Your task to perform on an android device: change the clock display to analog Image 0: 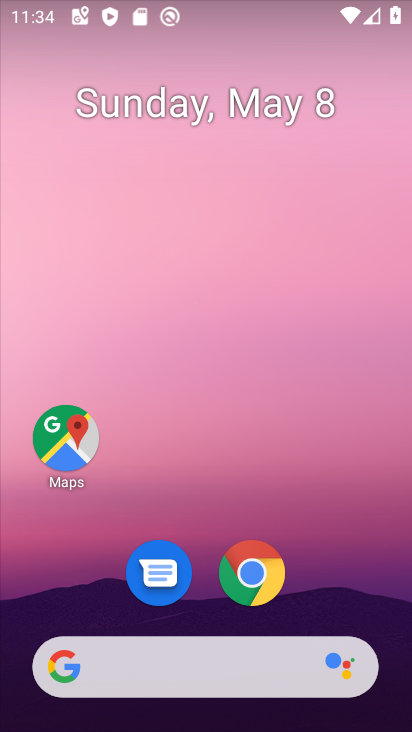
Step 0: drag from (336, 569) to (287, 35)
Your task to perform on an android device: change the clock display to analog Image 1: 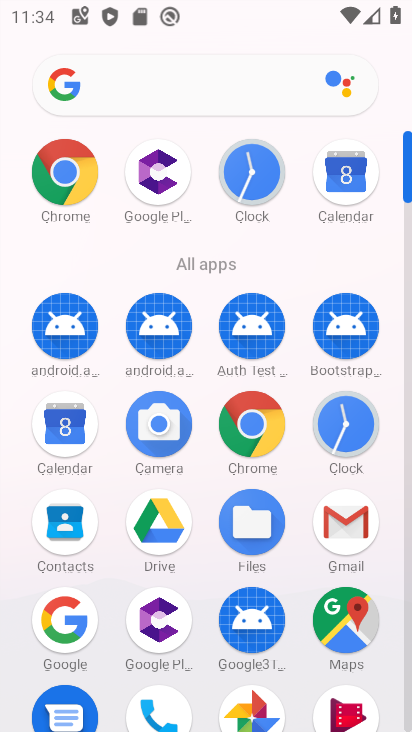
Step 1: drag from (13, 599) to (10, 242)
Your task to perform on an android device: change the clock display to analog Image 2: 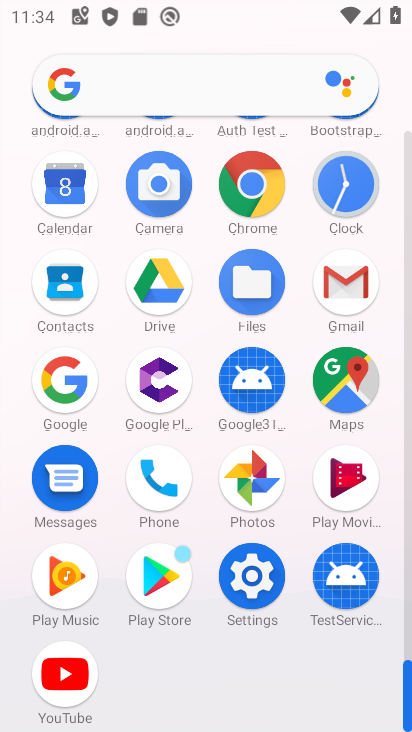
Step 2: click (347, 178)
Your task to perform on an android device: change the clock display to analog Image 3: 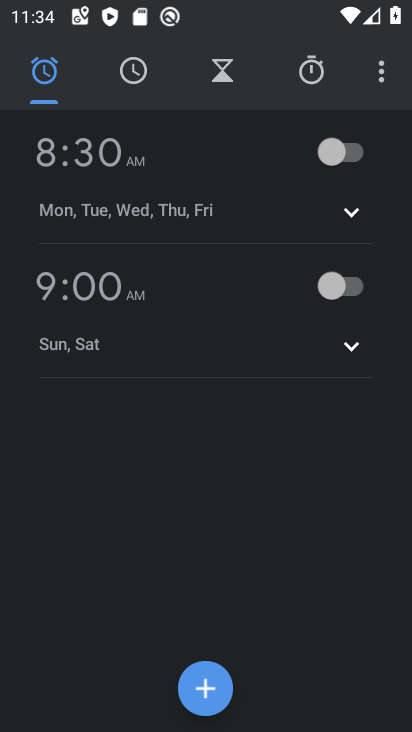
Step 3: drag from (385, 72) to (332, 133)
Your task to perform on an android device: change the clock display to analog Image 4: 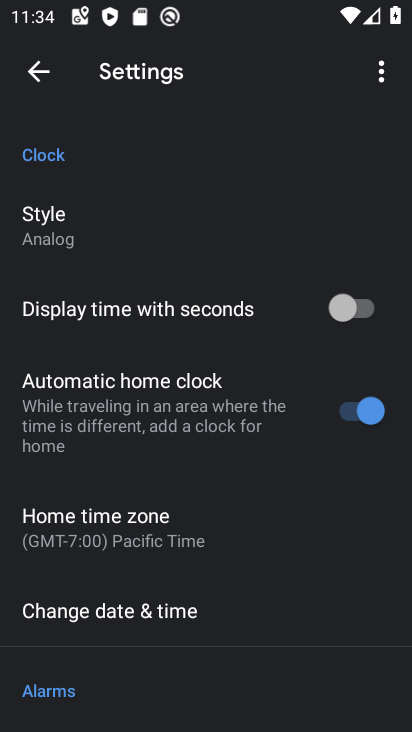
Step 4: click (131, 214)
Your task to perform on an android device: change the clock display to analog Image 5: 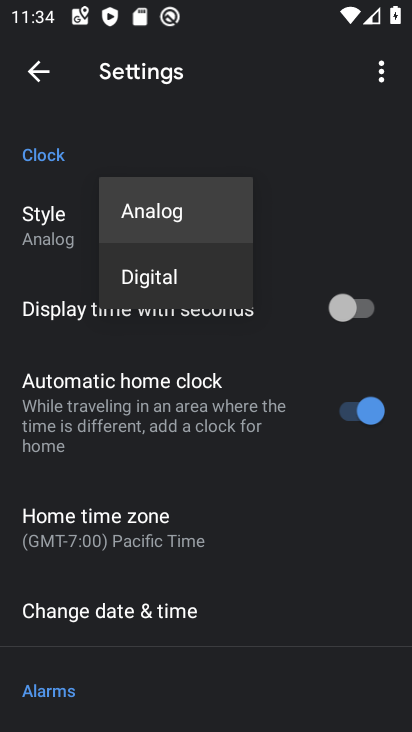
Step 5: click (131, 214)
Your task to perform on an android device: change the clock display to analog Image 6: 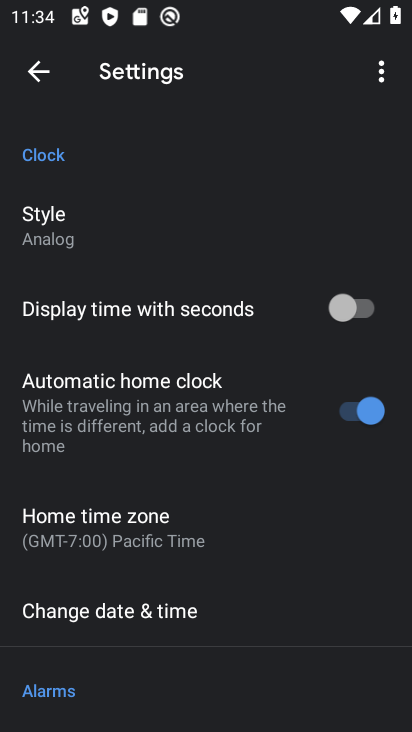
Step 6: task complete